Your task to perform on an android device: empty trash in the gmail app Image 0: 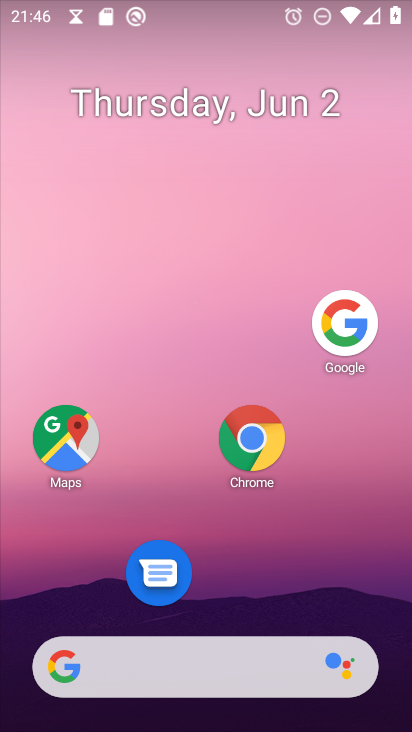
Step 0: press home button
Your task to perform on an android device: empty trash in the gmail app Image 1: 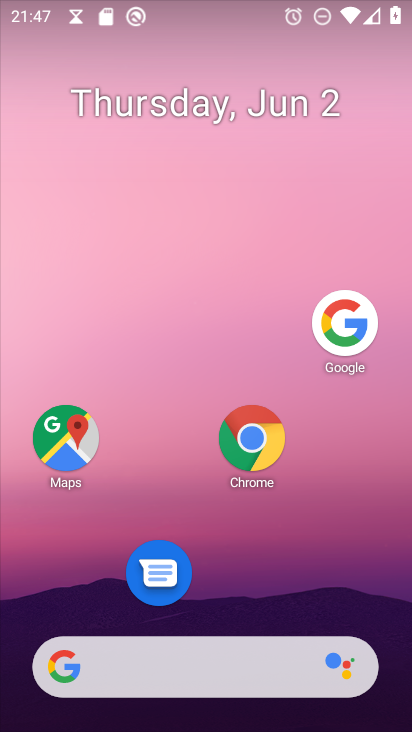
Step 1: drag from (146, 667) to (314, 87)
Your task to perform on an android device: empty trash in the gmail app Image 2: 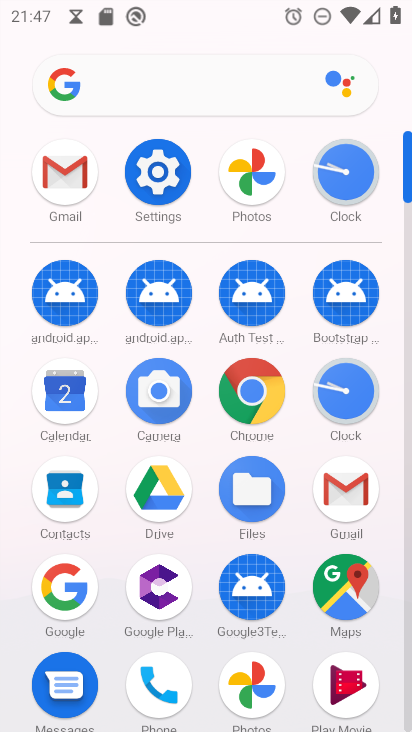
Step 2: click (346, 496)
Your task to perform on an android device: empty trash in the gmail app Image 3: 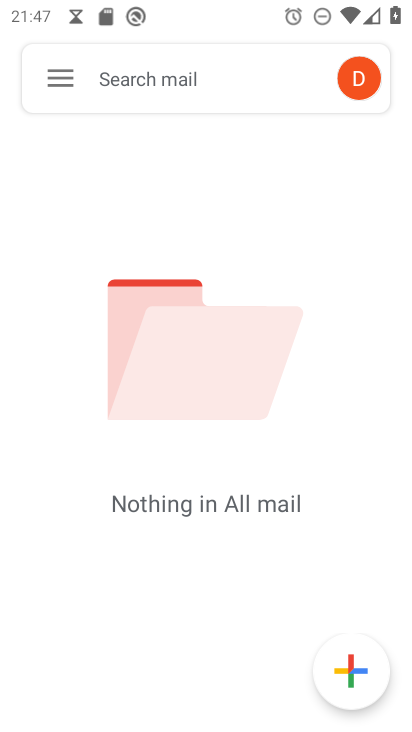
Step 3: click (60, 82)
Your task to perform on an android device: empty trash in the gmail app Image 4: 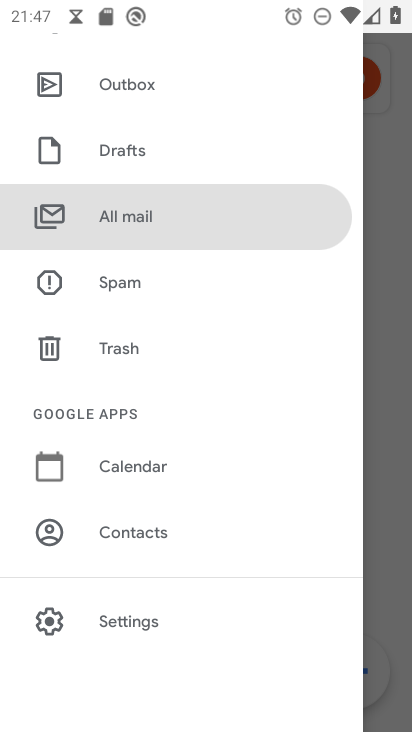
Step 4: click (125, 343)
Your task to perform on an android device: empty trash in the gmail app Image 5: 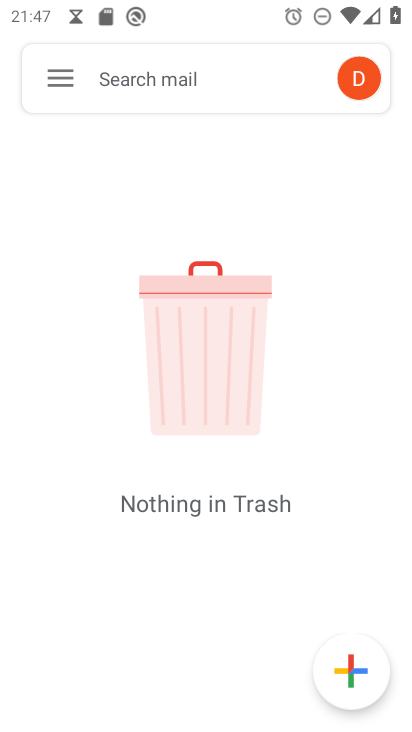
Step 5: task complete